Your task to perform on an android device: Open the calendar app, open the side menu, and click the "Day" option Image 0: 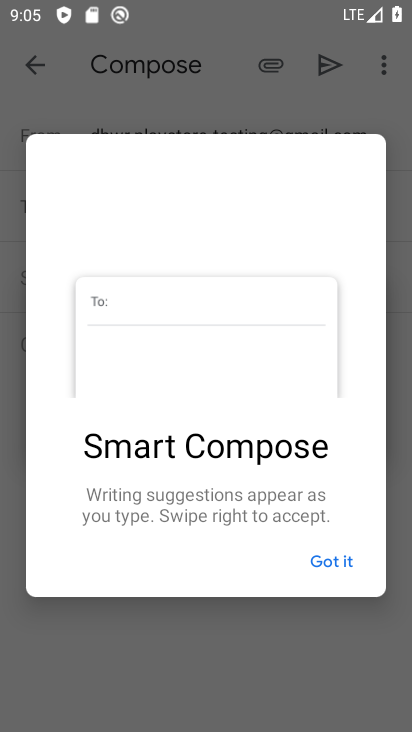
Step 0: press home button
Your task to perform on an android device: Open the calendar app, open the side menu, and click the "Day" option Image 1: 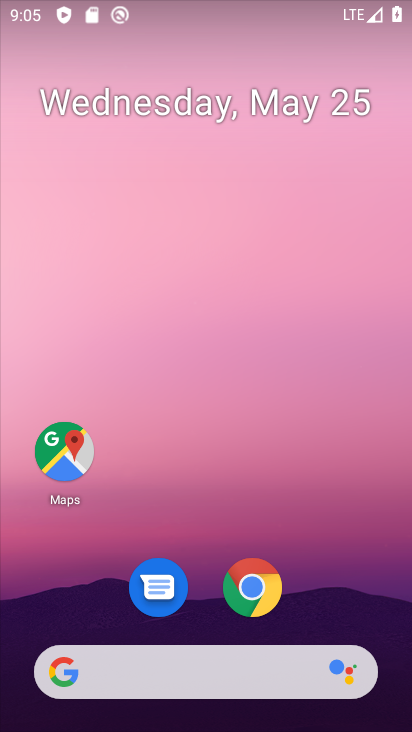
Step 1: drag from (204, 608) to (250, 23)
Your task to perform on an android device: Open the calendar app, open the side menu, and click the "Day" option Image 2: 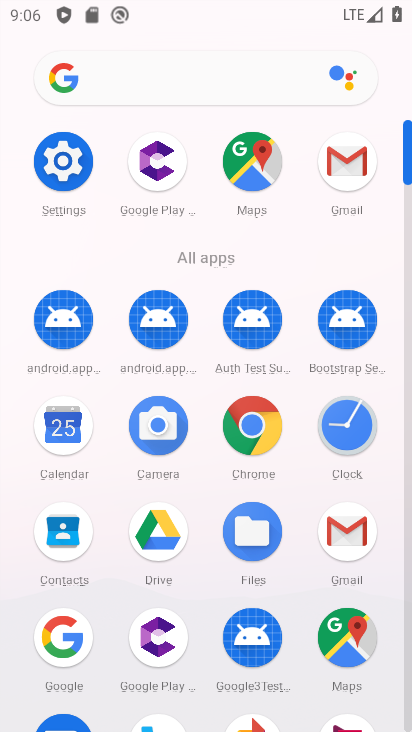
Step 2: click (64, 428)
Your task to perform on an android device: Open the calendar app, open the side menu, and click the "Day" option Image 3: 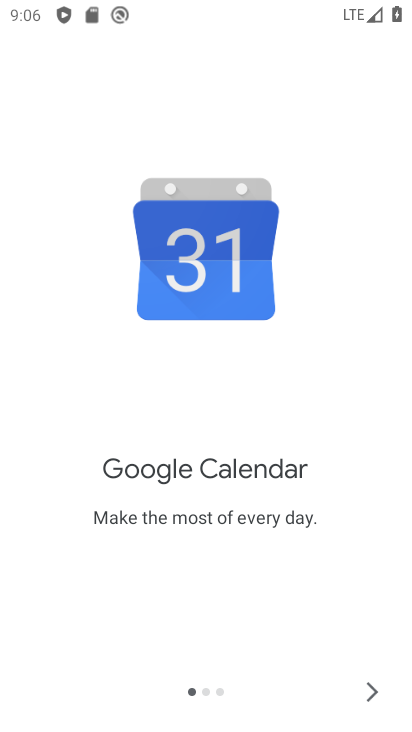
Step 3: click (369, 689)
Your task to perform on an android device: Open the calendar app, open the side menu, and click the "Day" option Image 4: 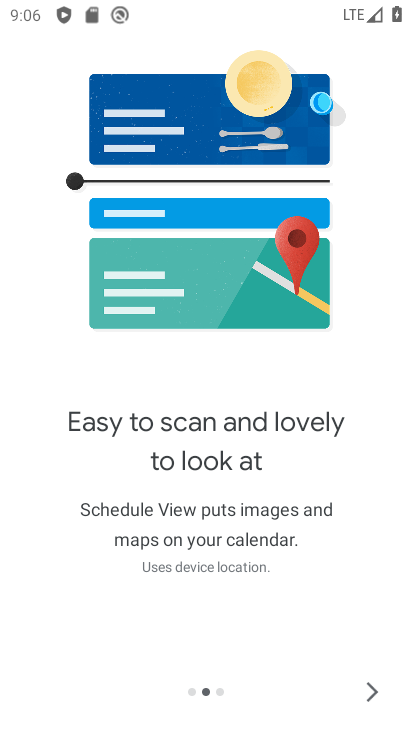
Step 4: click (369, 690)
Your task to perform on an android device: Open the calendar app, open the side menu, and click the "Day" option Image 5: 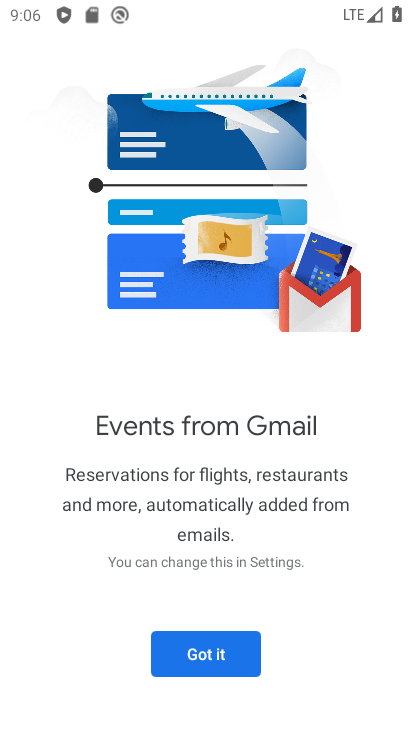
Step 5: click (228, 669)
Your task to perform on an android device: Open the calendar app, open the side menu, and click the "Day" option Image 6: 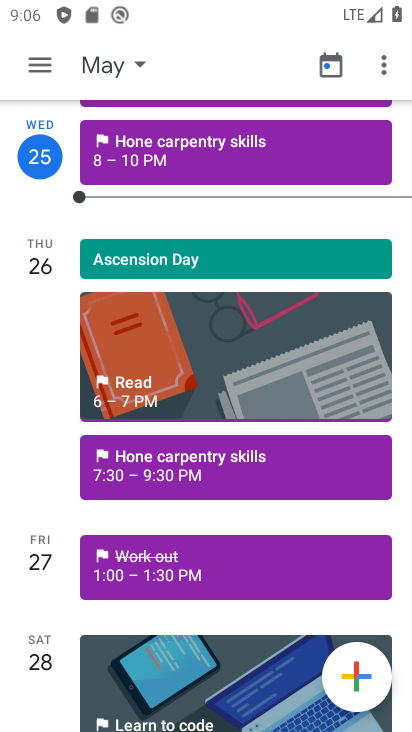
Step 6: click (25, 43)
Your task to perform on an android device: Open the calendar app, open the side menu, and click the "Day" option Image 7: 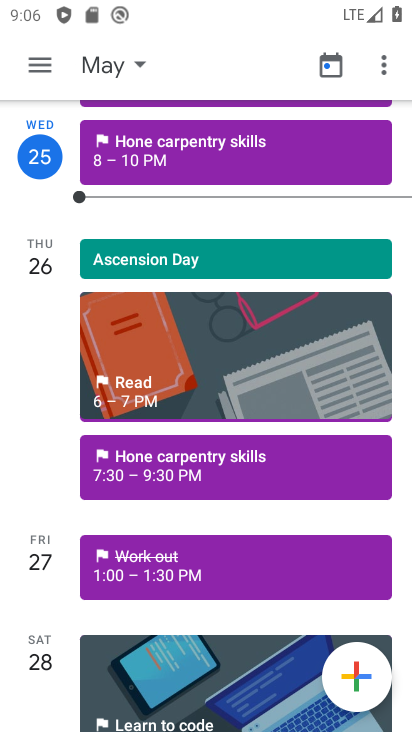
Step 7: click (50, 67)
Your task to perform on an android device: Open the calendar app, open the side menu, and click the "Day" option Image 8: 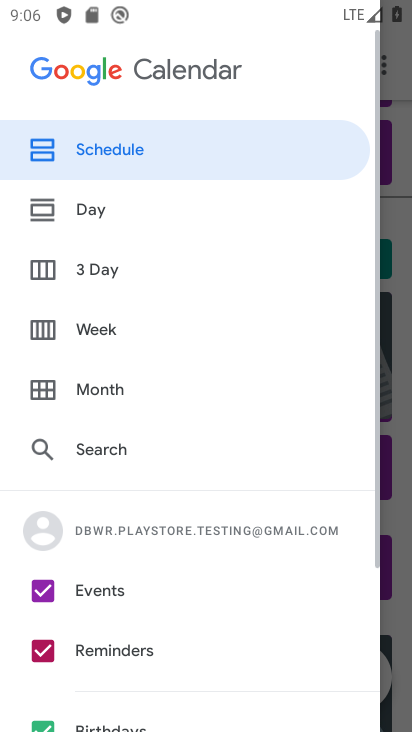
Step 8: click (101, 208)
Your task to perform on an android device: Open the calendar app, open the side menu, and click the "Day" option Image 9: 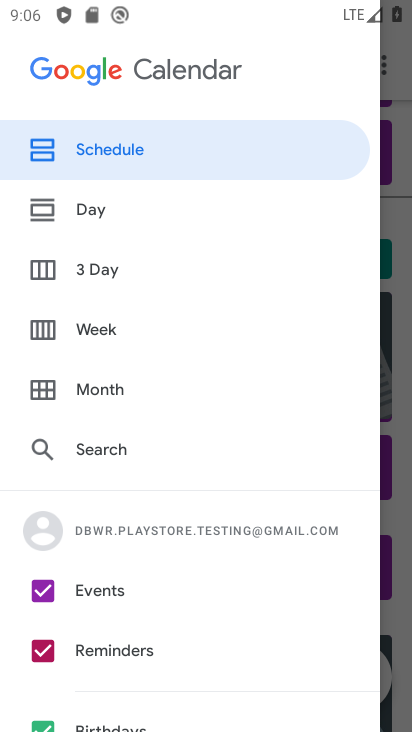
Step 9: click (99, 222)
Your task to perform on an android device: Open the calendar app, open the side menu, and click the "Day" option Image 10: 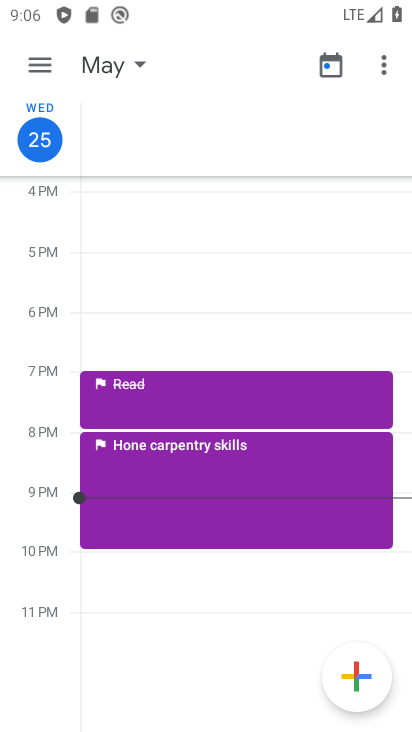
Step 10: task complete